Your task to perform on an android device: read, delete, or share a saved page in the chrome app Image 0: 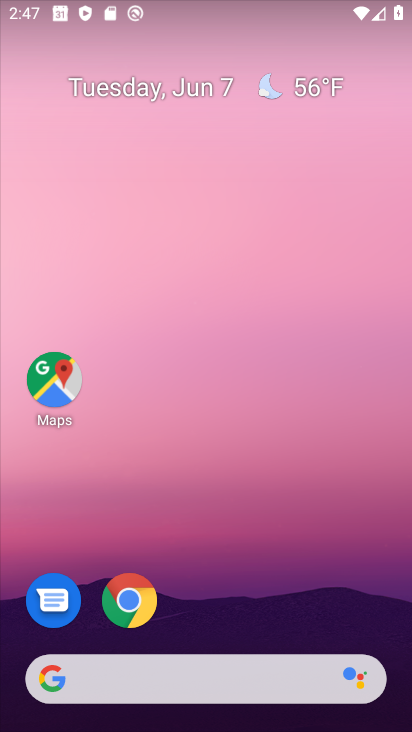
Step 0: click (130, 603)
Your task to perform on an android device: read, delete, or share a saved page in the chrome app Image 1: 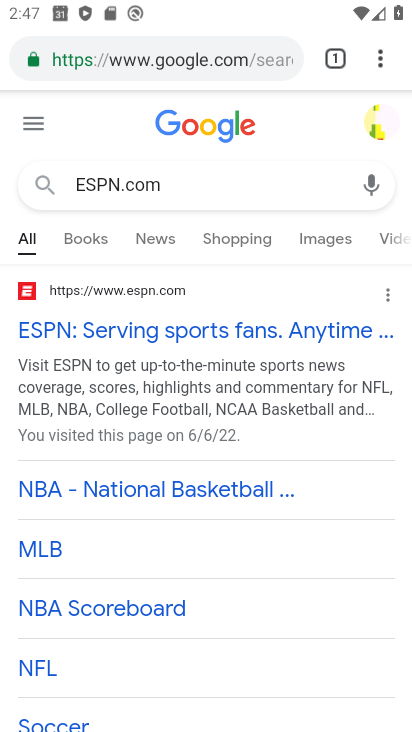
Step 1: click (384, 51)
Your task to perform on an android device: read, delete, or share a saved page in the chrome app Image 2: 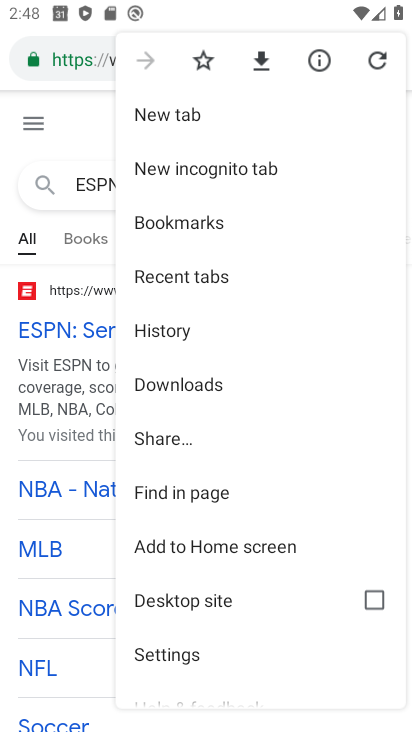
Step 2: click (146, 390)
Your task to perform on an android device: read, delete, or share a saved page in the chrome app Image 3: 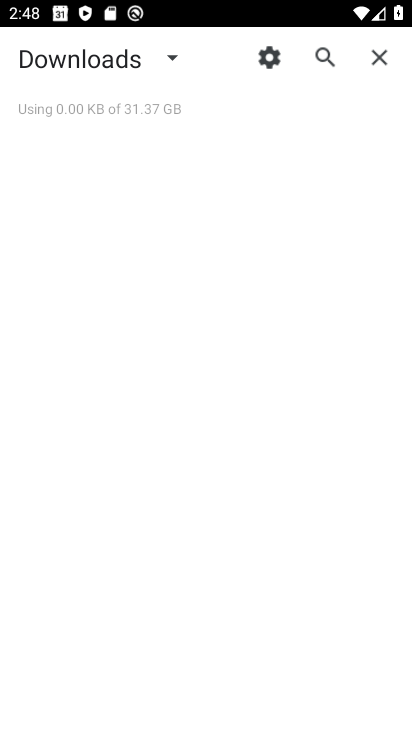
Step 3: task complete